Your task to perform on an android device: turn vacation reply on in the gmail app Image 0: 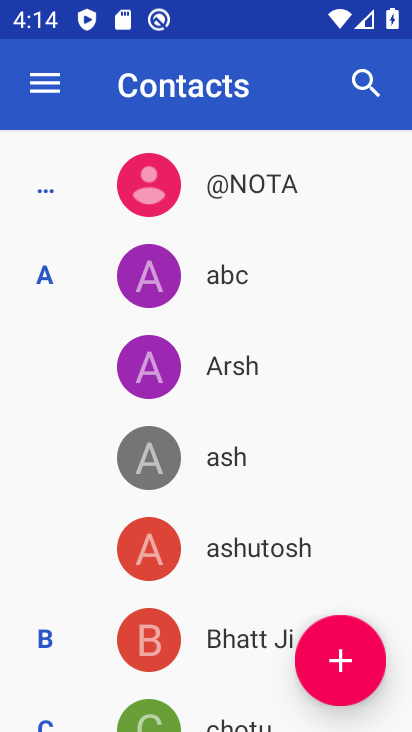
Step 0: press home button
Your task to perform on an android device: turn vacation reply on in the gmail app Image 1: 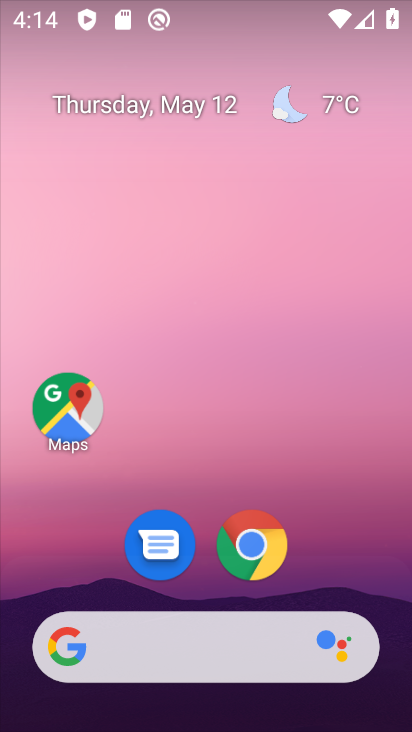
Step 1: drag from (356, 497) to (283, 147)
Your task to perform on an android device: turn vacation reply on in the gmail app Image 2: 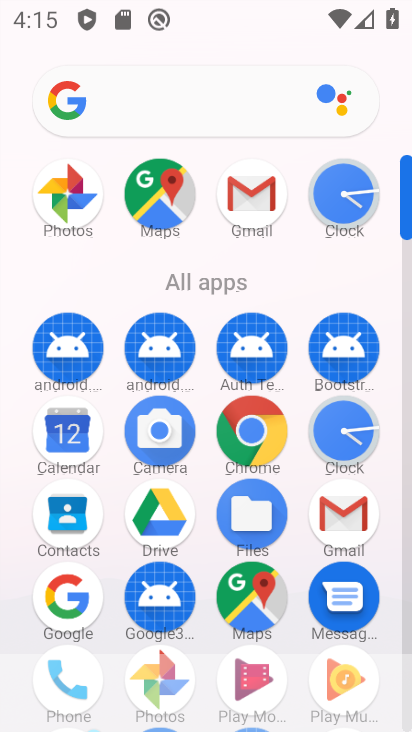
Step 2: click (268, 184)
Your task to perform on an android device: turn vacation reply on in the gmail app Image 3: 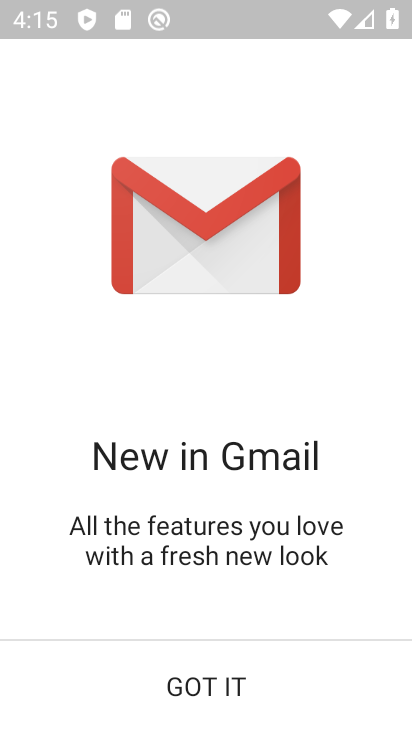
Step 3: click (237, 680)
Your task to perform on an android device: turn vacation reply on in the gmail app Image 4: 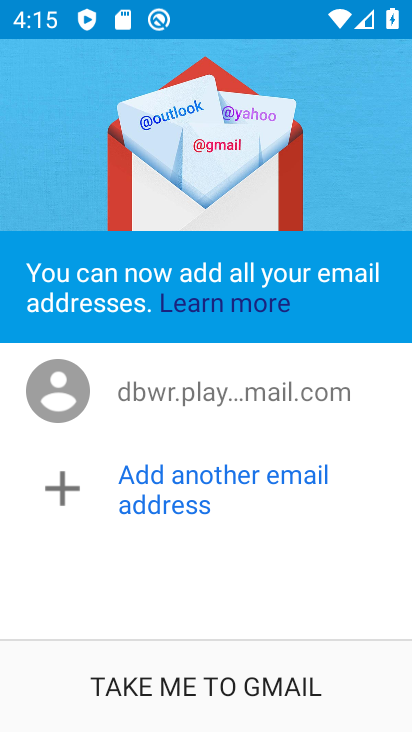
Step 4: click (240, 683)
Your task to perform on an android device: turn vacation reply on in the gmail app Image 5: 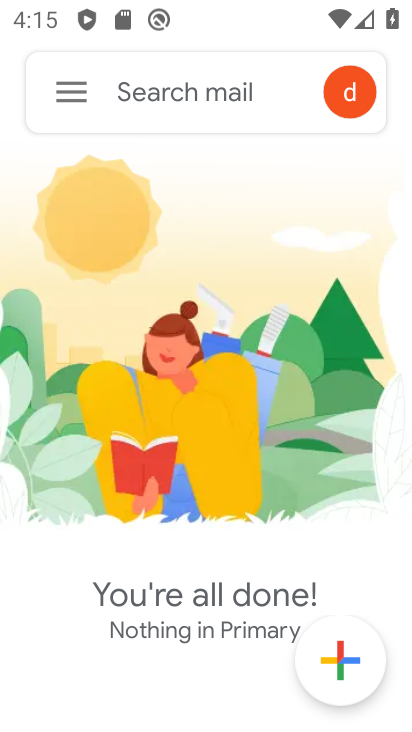
Step 5: click (60, 87)
Your task to perform on an android device: turn vacation reply on in the gmail app Image 6: 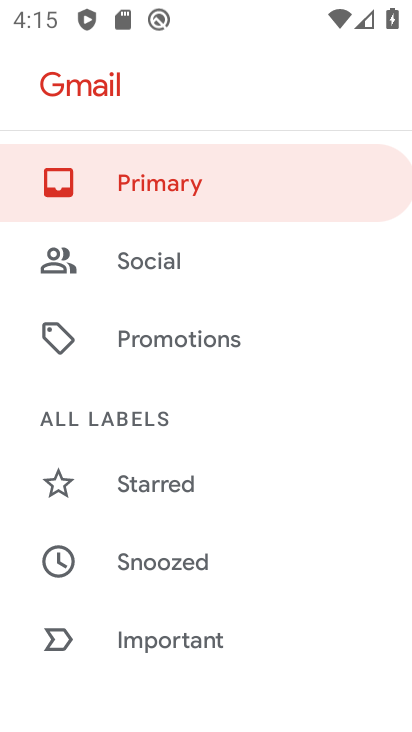
Step 6: drag from (127, 607) to (331, 1)
Your task to perform on an android device: turn vacation reply on in the gmail app Image 7: 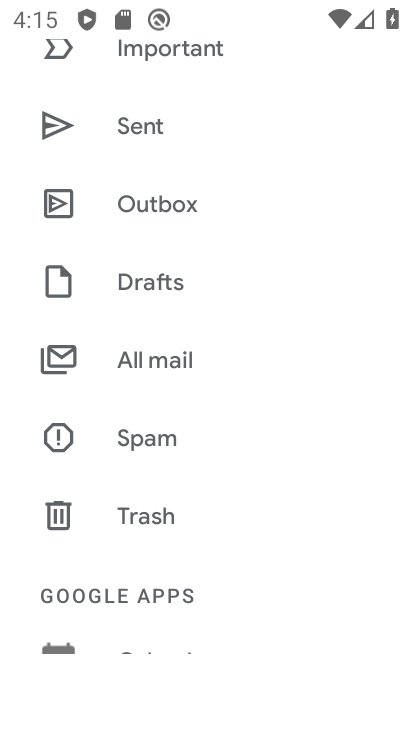
Step 7: drag from (182, 520) to (267, 38)
Your task to perform on an android device: turn vacation reply on in the gmail app Image 8: 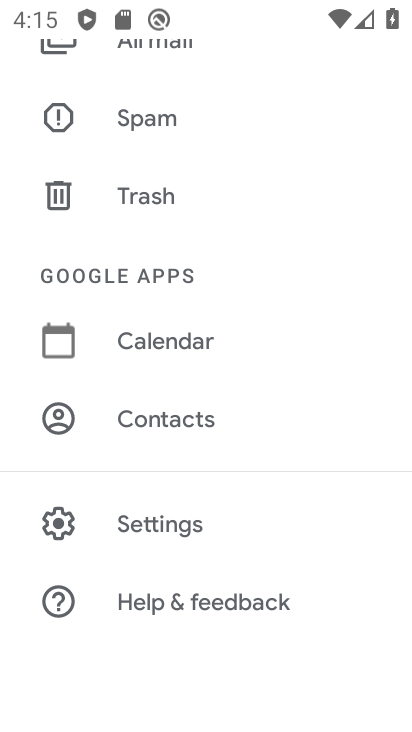
Step 8: click (156, 524)
Your task to perform on an android device: turn vacation reply on in the gmail app Image 9: 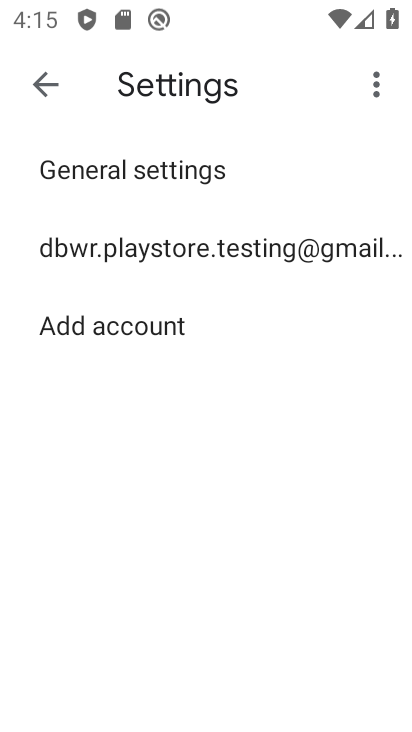
Step 9: click (228, 252)
Your task to perform on an android device: turn vacation reply on in the gmail app Image 10: 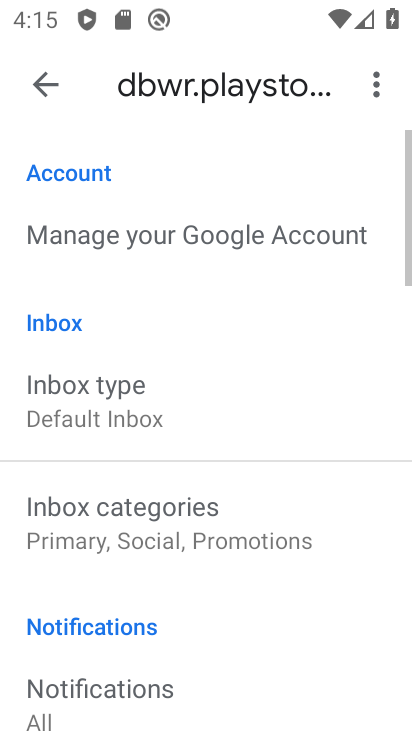
Step 10: drag from (212, 590) to (279, 147)
Your task to perform on an android device: turn vacation reply on in the gmail app Image 11: 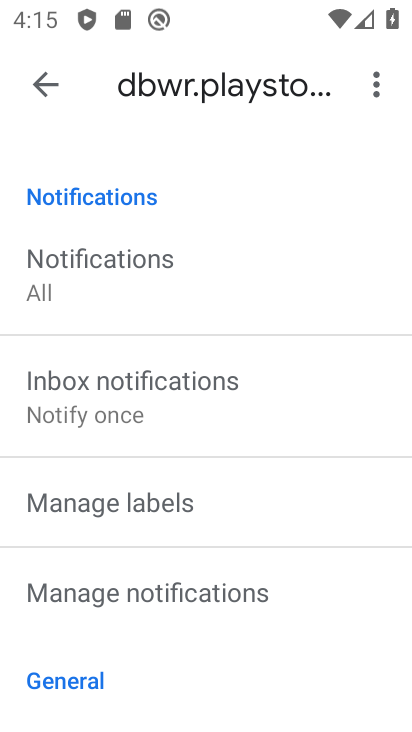
Step 11: drag from (186, 565) to (269, 134)
Your task to perform on an android device: turn vacation reply on in the gmail app Image 12: 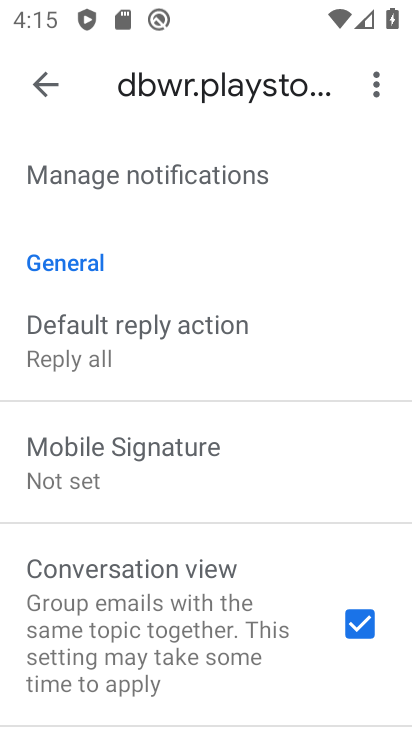
Step 12: drag from (194, 605) to (214, 171)
Your task to perform on an android device: turn vacation reply on in the gmail app Image 13: 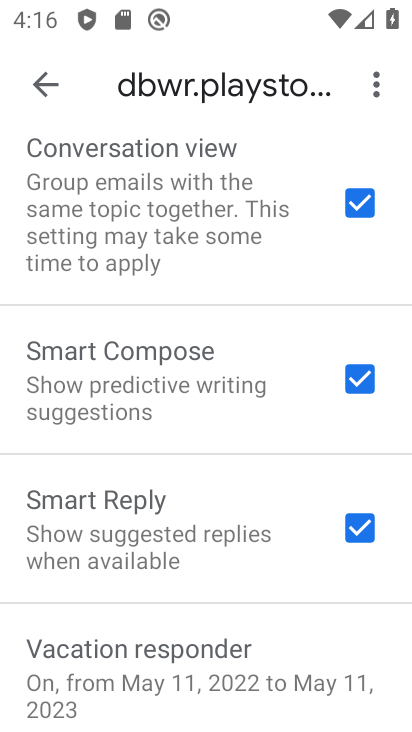
Step 13: drag from (220, 562) to (235, 188)
Your task to perform on an android device: turn vacation reply on in the gmail app Image 14: 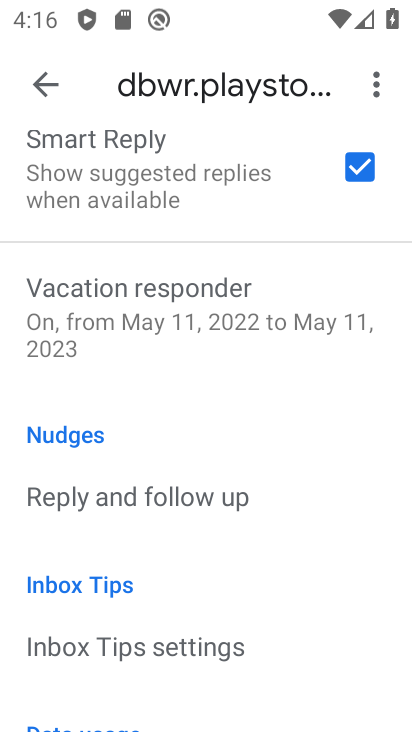
Step 14: click (192, 330)
Your task to perform on an android device: turn vacation reply on in the gmail app Image 15: 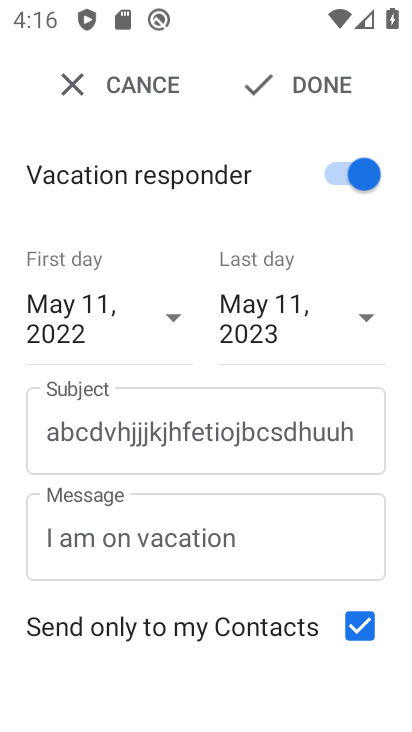
Step 15: task complete